Your task to perform on an android device: change the clock display to analog Image 0: 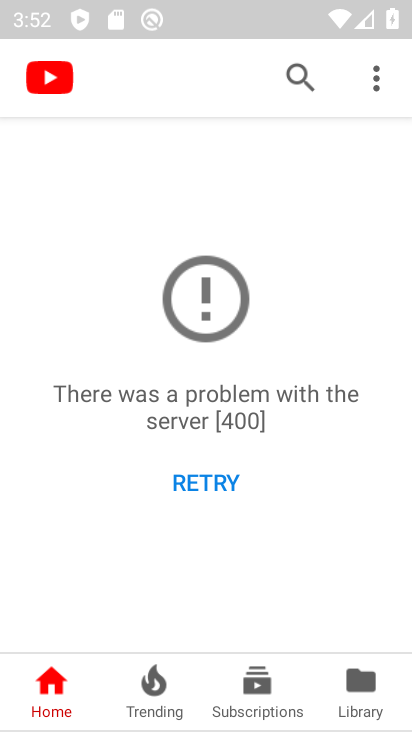
Step 0: press home button
Your task to perform on an android device: change the clock display to analog Image 1: 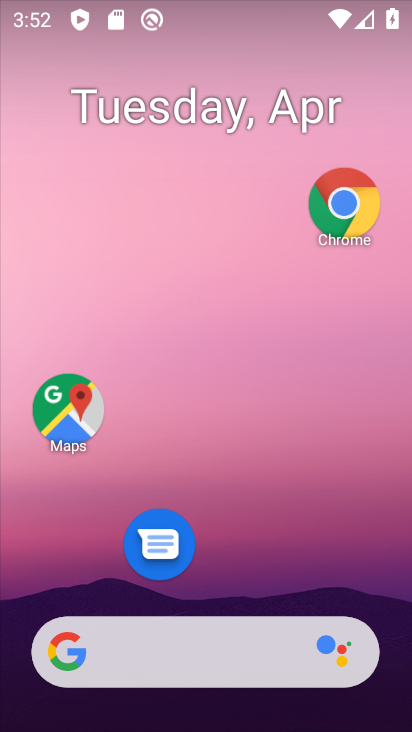
Step 1: drag from (254, 577) to (280, 44)
Your task to perform on an android device: change the clock display to analog Image 2: 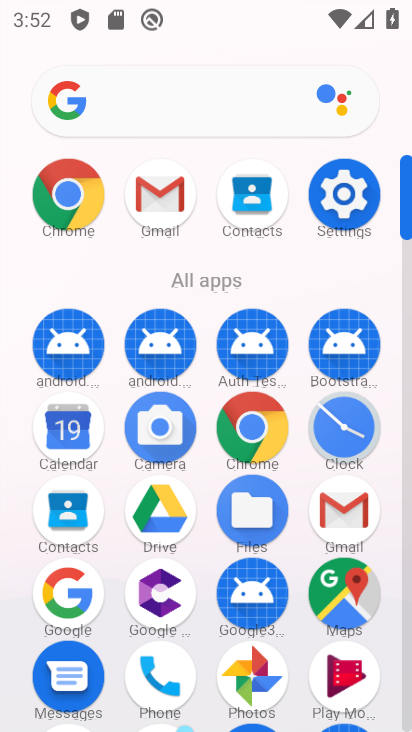
Step 2: click (347, 439)
Your task to perform on an android device: change the clock display to analog Image 3: 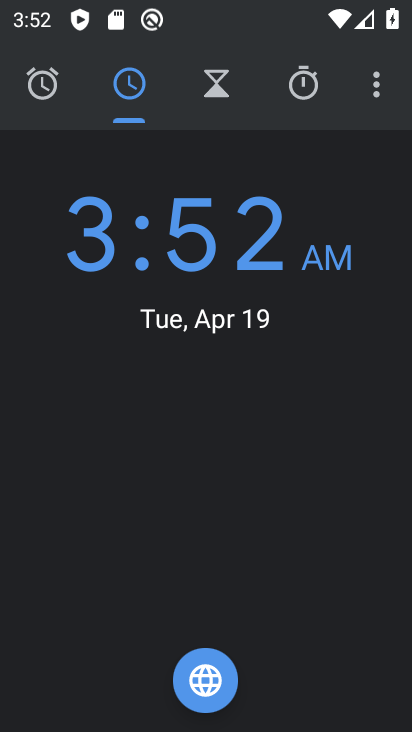
Step 3: click (367, 87)
Your task to perform on an android device: change the clock display to analog Image 4: 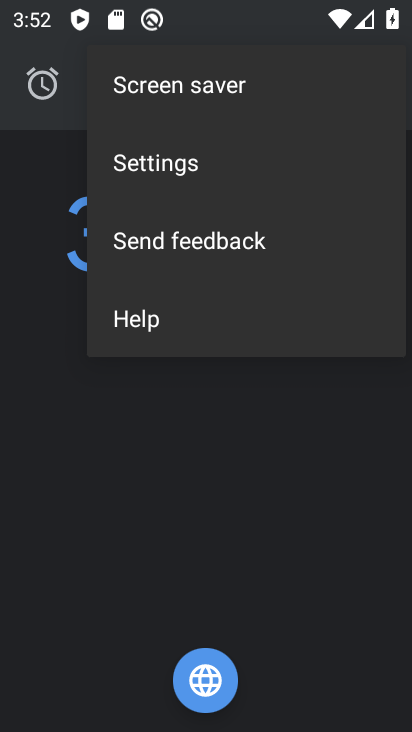
Step 4: click (182, 167)
Your task to perform on an android device: change the clock display to analog Image 5: 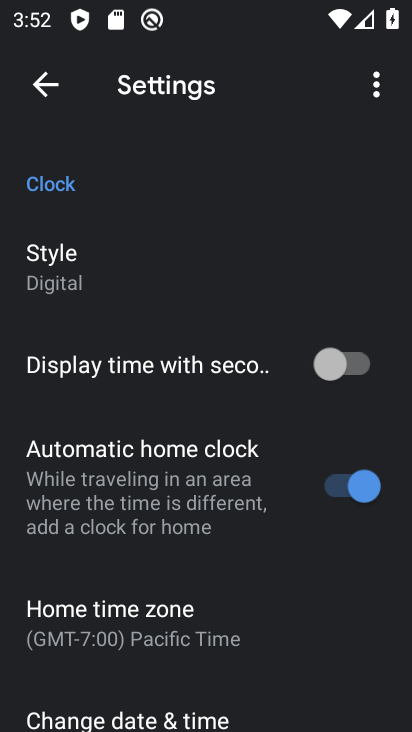
Step 5: click (54, 273)
Your task to perform on an android device: change the clock display to analog Image 6: 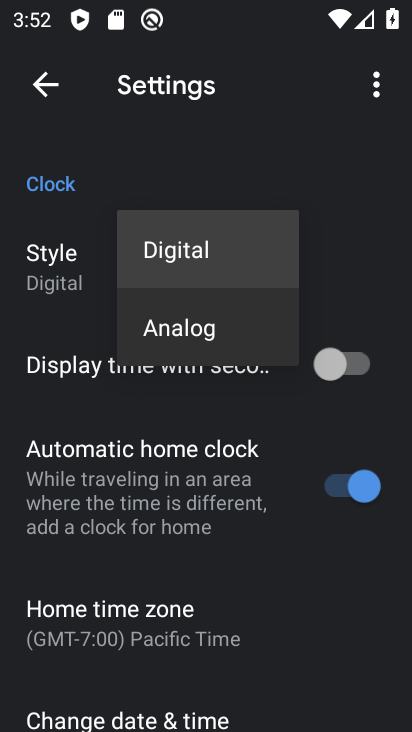
Step 6: click (177, 321)
Your task to perform on an android device: change the clock display to analog Image 7: 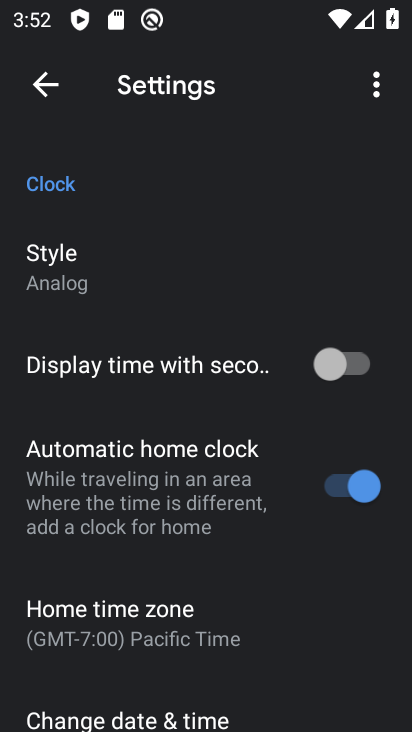
Step 7: task complete